Your task to perform on an android device: Go to Android settings Image 0: 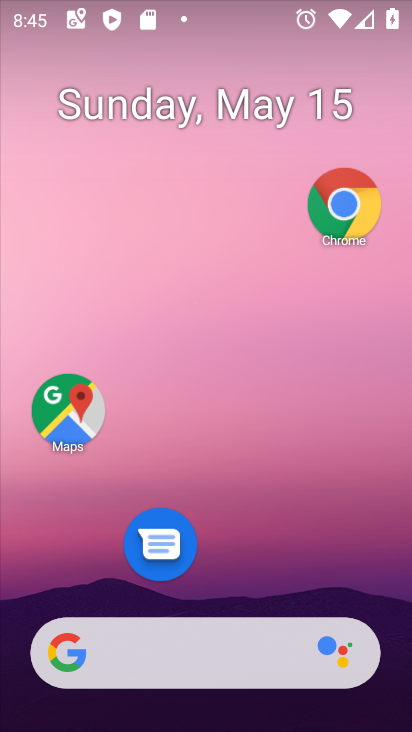
Step 0: drag from (221, 505) to (217, 55)
Your task to perform on an android device: Go to Android settings Image 1: 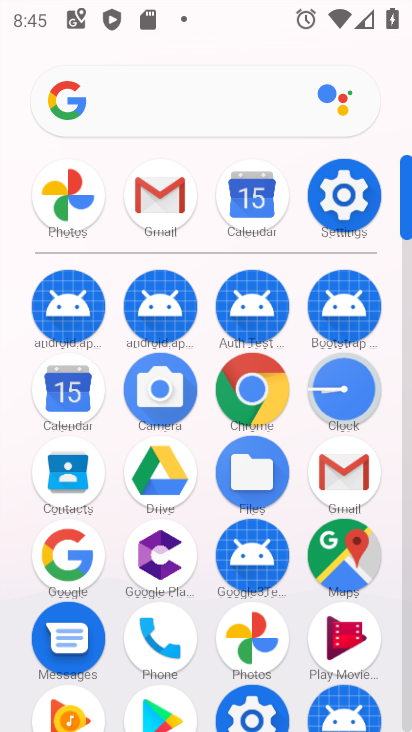
Step 1: click (346, 199)
Your task to perform on an android device: Go to Android settings Image 2: 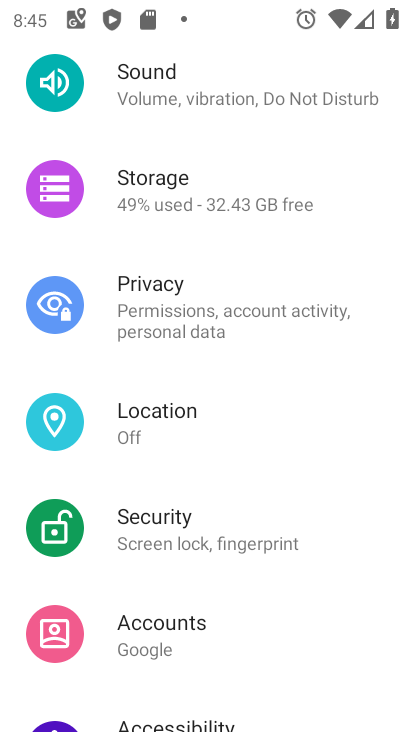
Step 2: drag from (166, 611) to (175, 255)
Your task to perform on an android device: Go to Android settings Image 3: 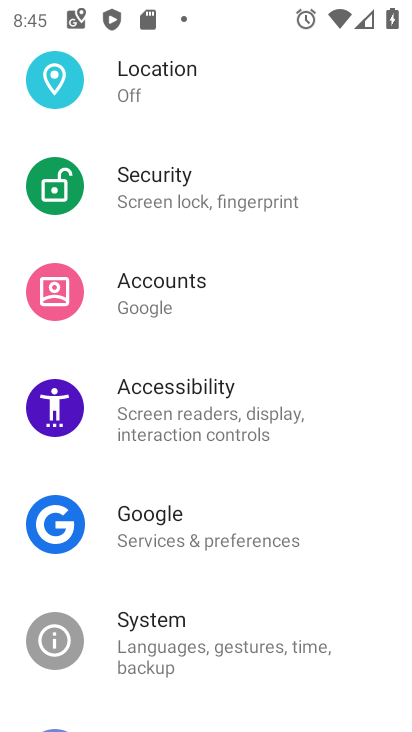
Step 3: drag from (199, 637) to (196, 297)
Your task to perform on an android device: Go to Android settings Image 4: 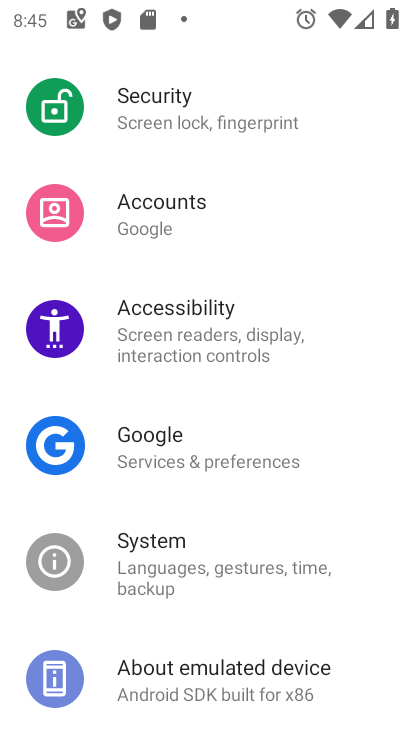
Step 4: click (173, 575)
Your task to perform on an android device: Go to Android settings Image 5: 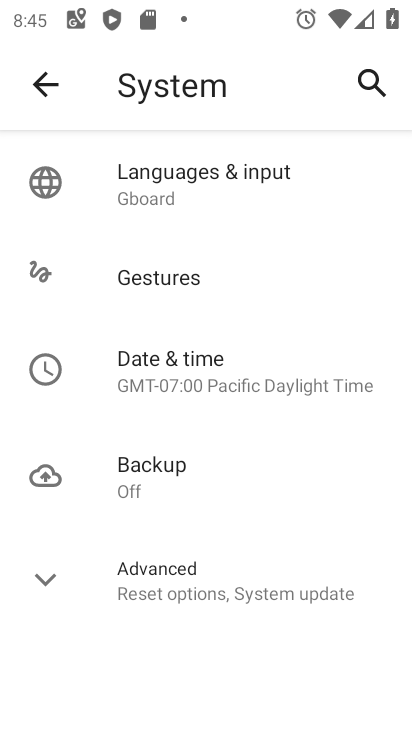
Step 5: task complete